Your task to perform on an android device: Go to notification settings Image 0: 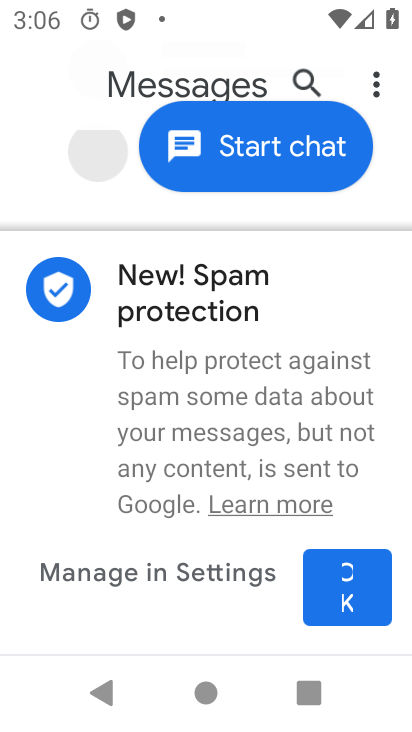
Step 0: press home button
Your task to perform on an android device: Go to notification settings Image 1: 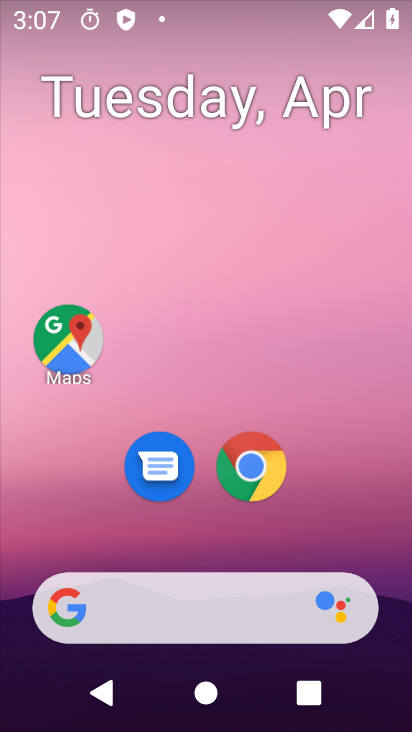
Step 1: drag from (177, 535) to (91, 20)
Your task to perform on an android device: Go to notification settings Image 2: 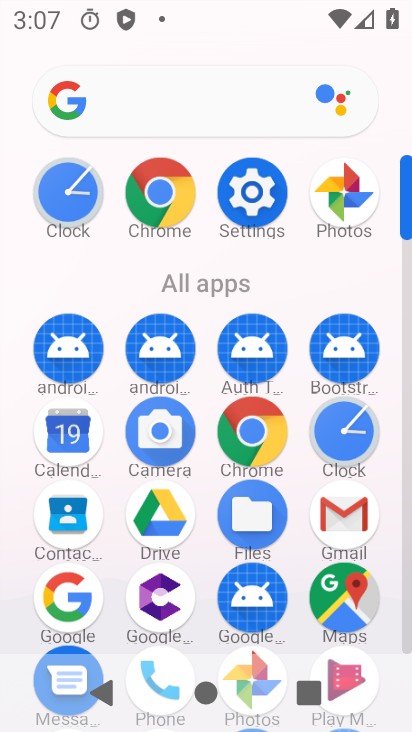
Step 2: click (247, 173)
Your task to perform on an android device: Go to notification settings Image 3: 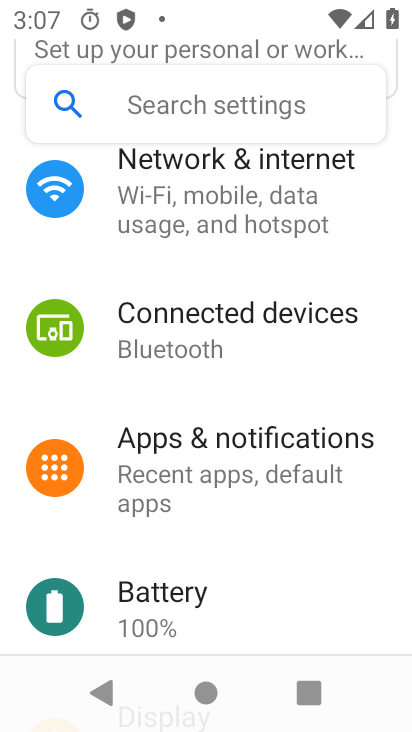
Step 3: click (239, 455)
Your task to perform on an android device: Go to notification settings Image 4: 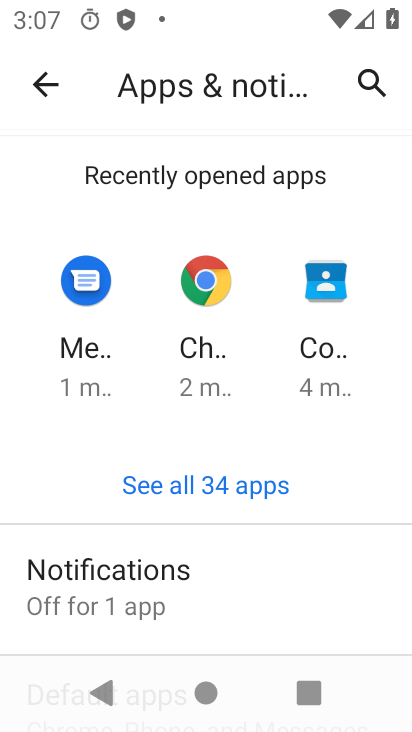
Step 4: click (162, 594)
Your task to perform on an android device: Go to notification settings Image 5: 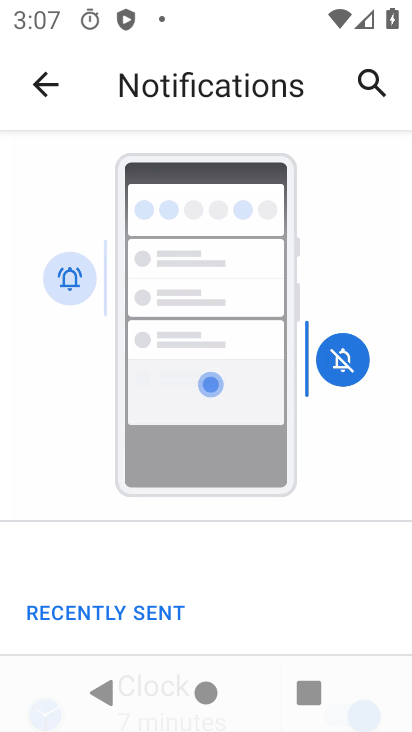
Step 5: task complete